Your task to perform on an android device: When is my next appointment? Image 0: 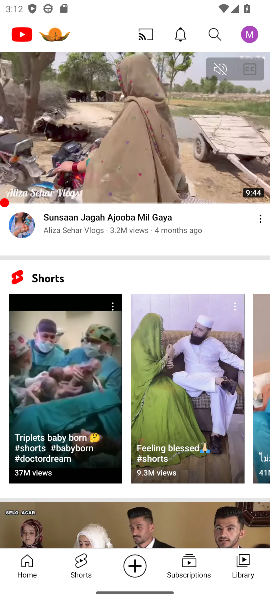
Step 0: press home button
Your task to perform on an android device: When is my next appointment? Image 1: 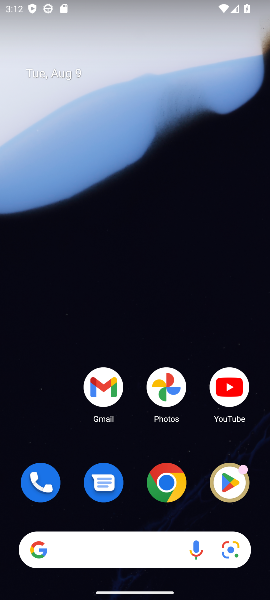
Step 1: drag from (134, 439) to (202, 21)
Your task to perform on an android device: When is my next appointment? Image 2: 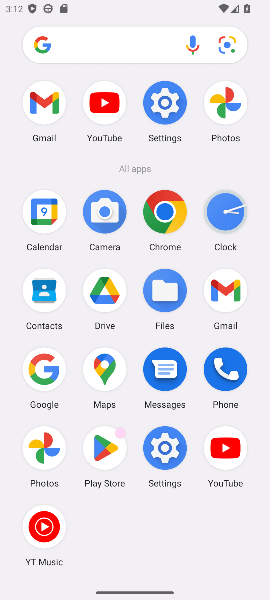
Step 2: click (35, 233)
Your task to perform on an android device: When is my next appointment? Image 3: 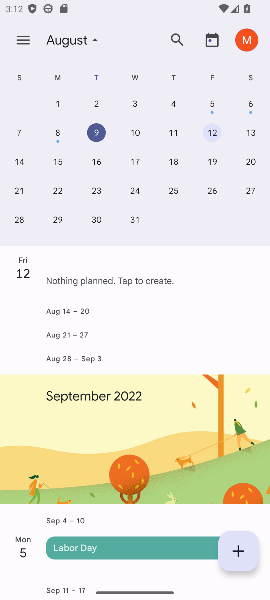
Step 3: click (137, 134)
Your task to perform on an android device: When is my next appointment? Image 4: 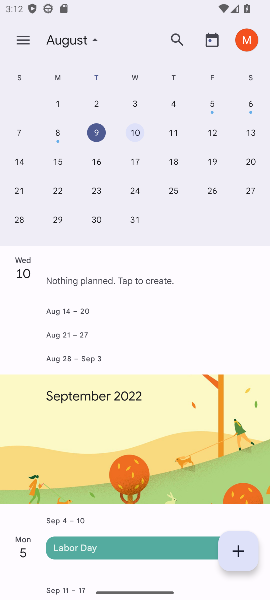
Step 4: click (166, 130)
Your task to perform on an android device: When is my next appointment? Image 5: 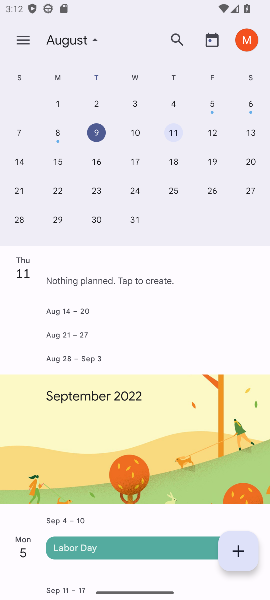
Step 5: click (130, 136)
Your task to perform on an android device: When is my next appointment? Image 6: 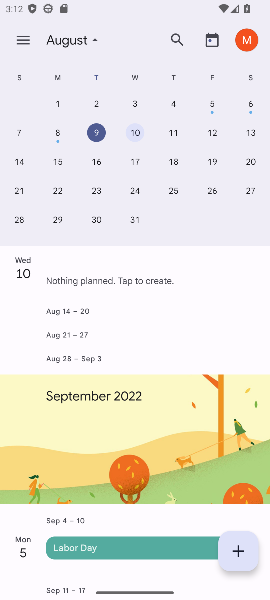
Step 6: task complete